Your task to perform on an android device: add a label to a message in the gmail app Image 0: 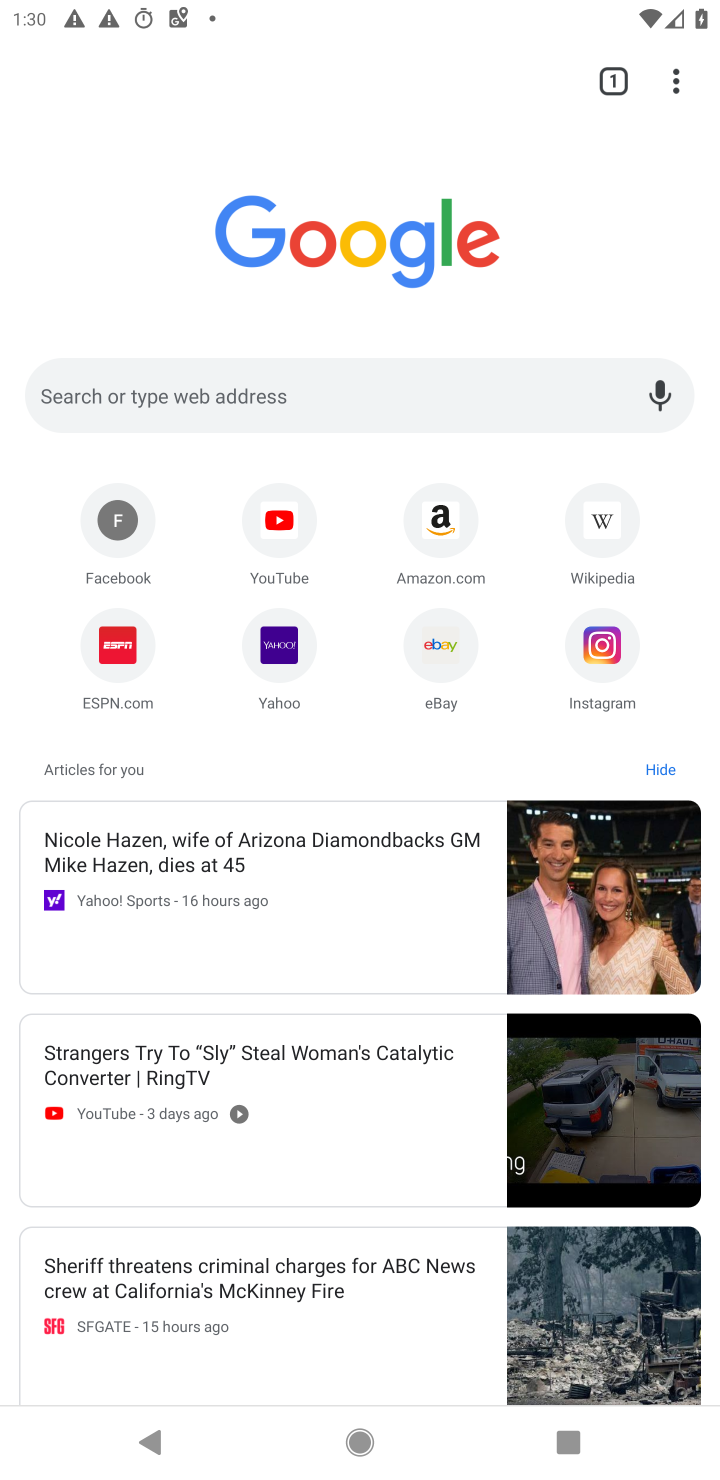
Step 0: press home button
Your task to perform on an android device: add a label to a message in the gmail app Image 1: 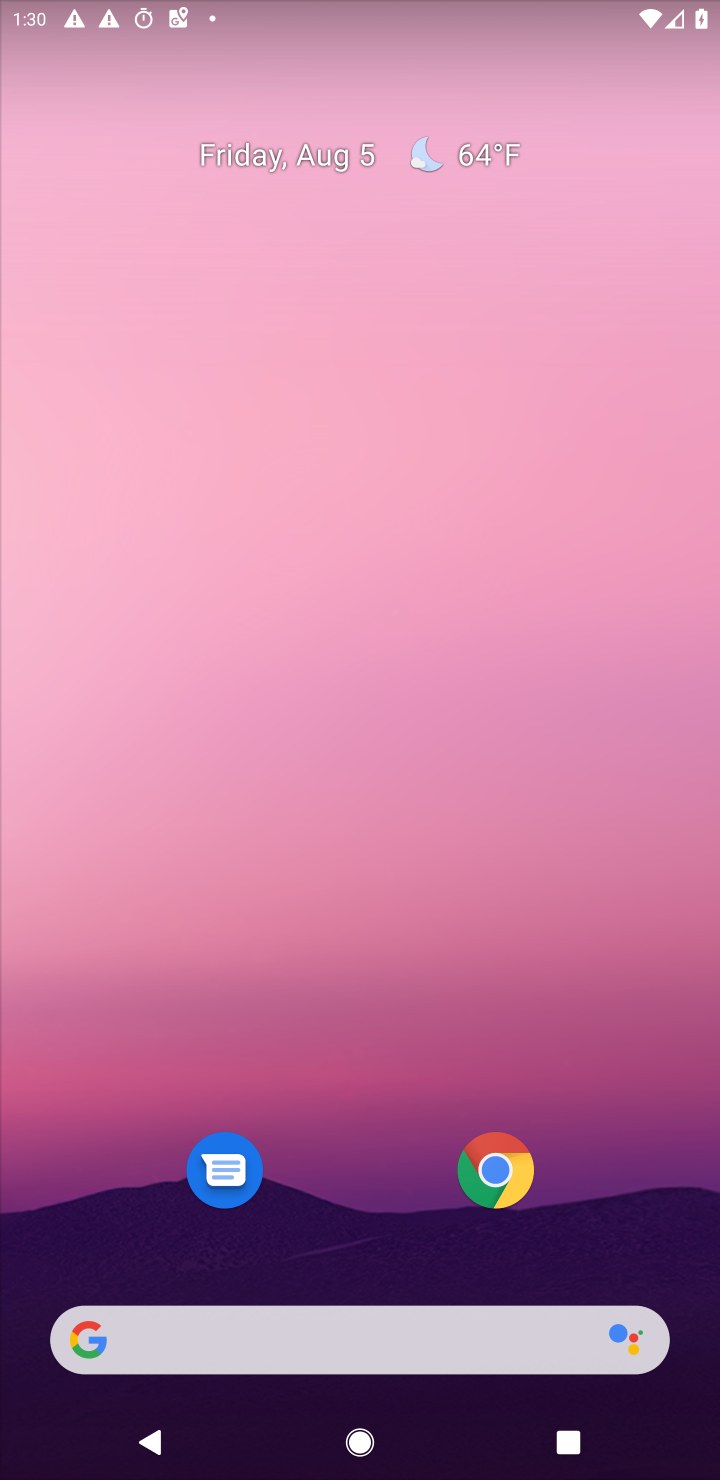
Step 1: drag from (343, 968) to (394, 212)
Your task to perform on an android device: add a label to a message in the gmail app Image 2: 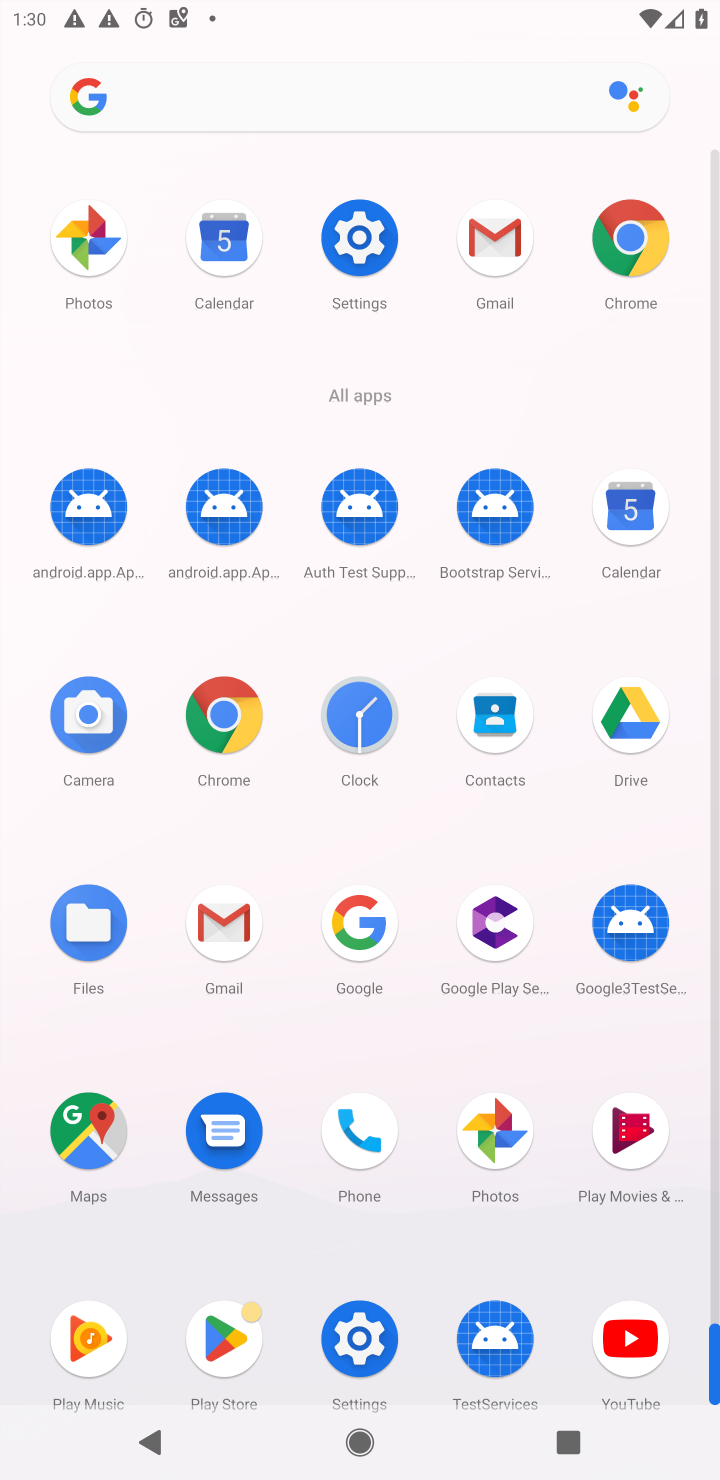
Step 2: click (228, 951)
Your task to perform on an android device: add a label to a message in the gmail app Image 3: 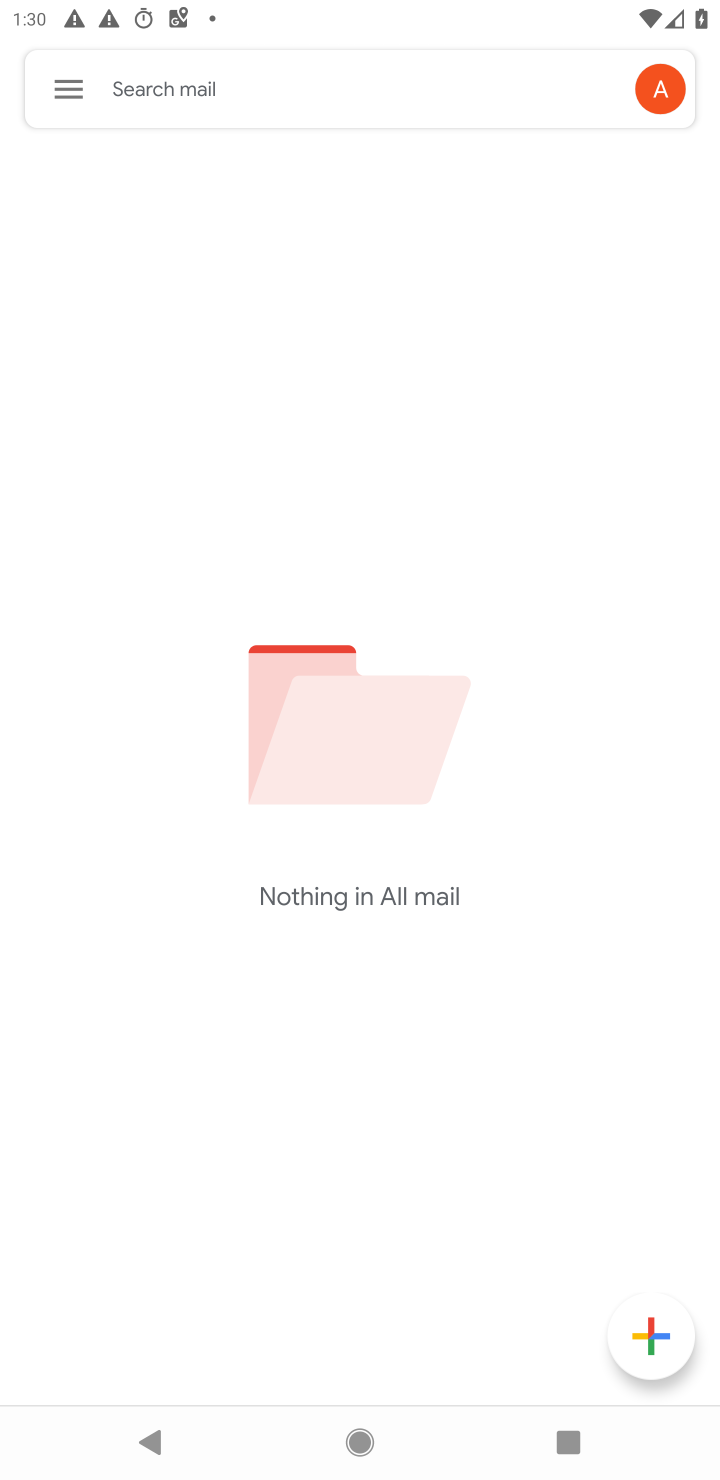
Step 3: click (68, 86)
Your task to perform on an android device: add a label to a message in the gmail app Image 4: 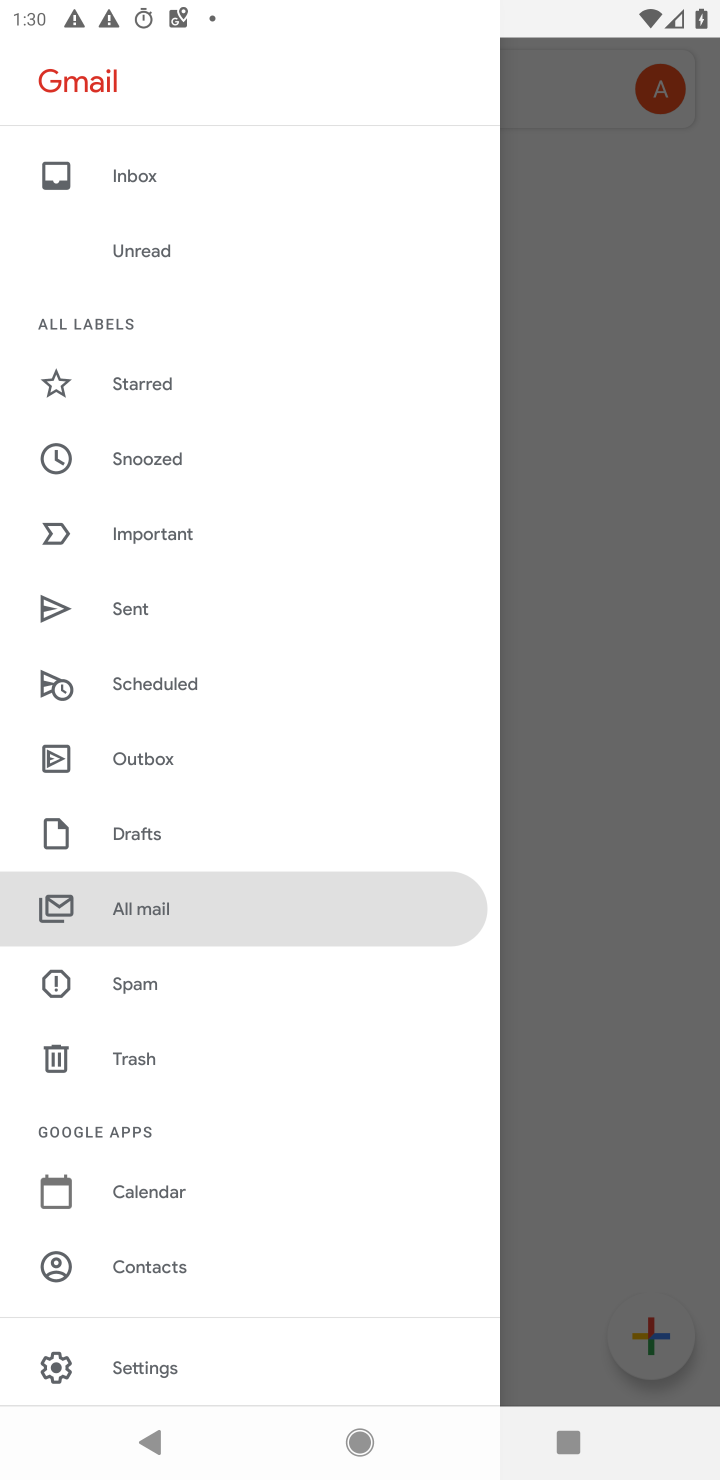
Step 4: click (163, 196)
Your task to perform on an android device: add a label to a message in the gmail app Image 5: 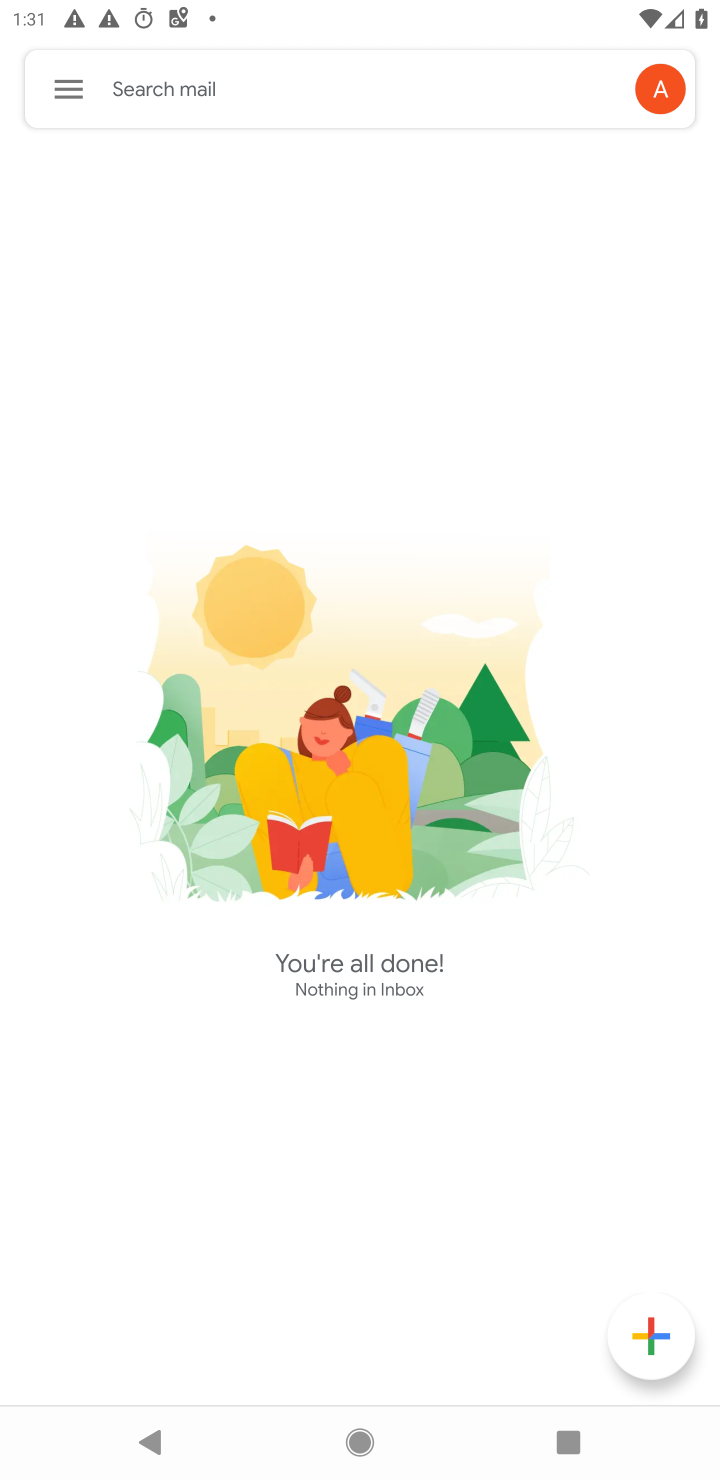
Step 5: task complete